Your task to perform on an android device: Open calendar and show me the first week of next month Image 0: 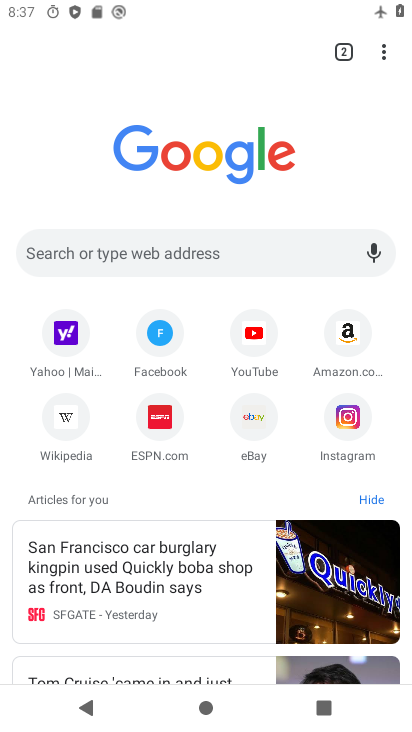
Step 0: press home button
Your task to perform on an android device: Open calendar and show me the first week of next month Image 1: 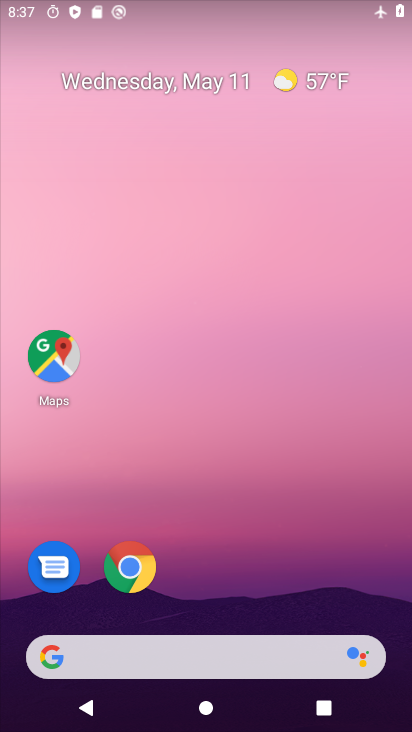
Step 1: drag from (250, 547) to (204, 98)
Your task to perform on an android device: Open calendar and show me the first week of next month Image 2: 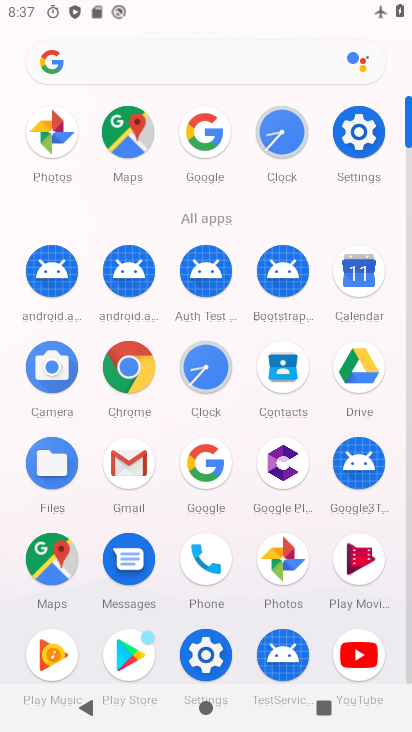
Step 2: click (362, 281)
Your task to perform on an android device: Open calendar and show me the first week of next month Image 3: 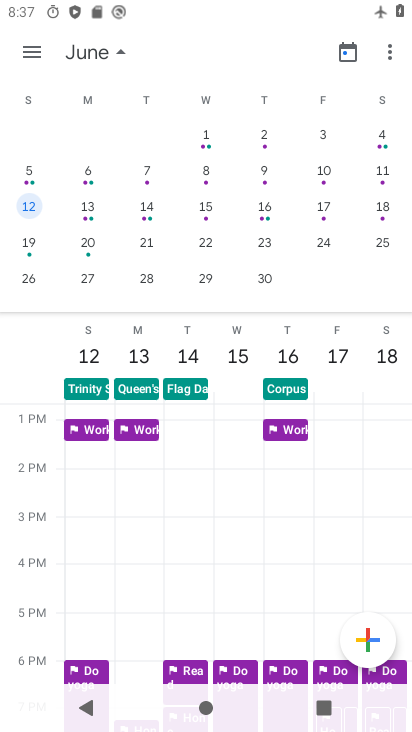
Step 3: click (36, 175)
Your task to perform on an android device: Open calendar and show me the first week of next month Image 4: 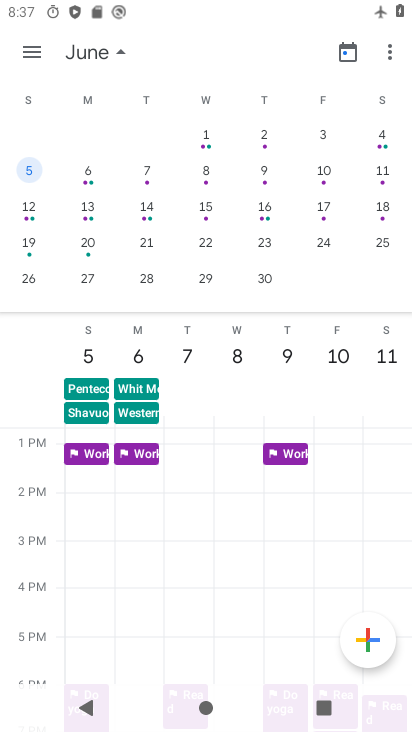
Step 4: click (215, 139)
Your task to perform on an android device: Open calendar and show me the first week of next month Image 5: 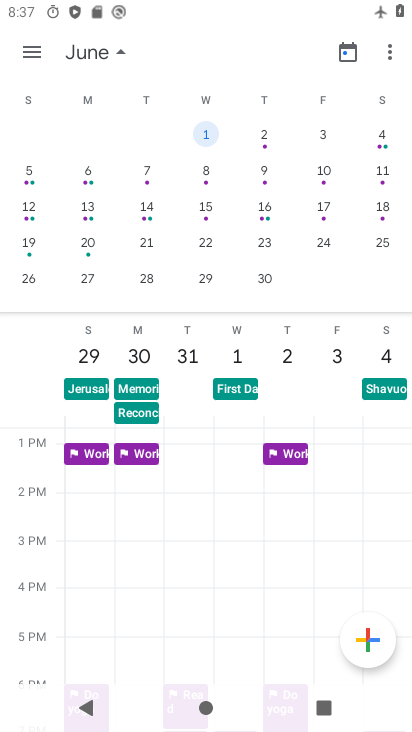
Step 5: task complete